Your task to perform on an android device: turn smart compose on in the gmail app Image 0: 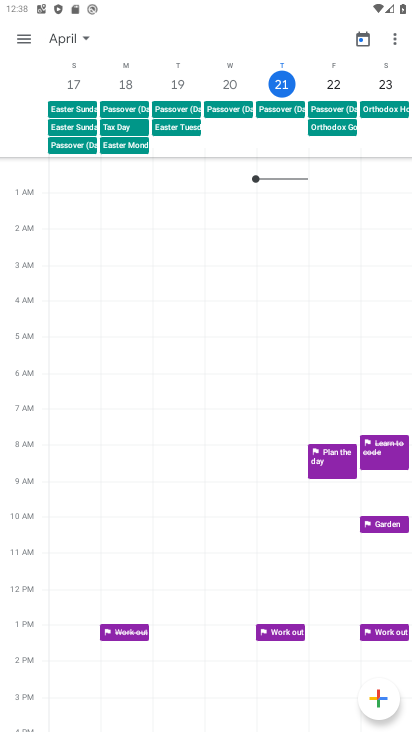
Step 0: press home button
Your task to perform on an android device: turn smart compose on in the gmail app Image 1: 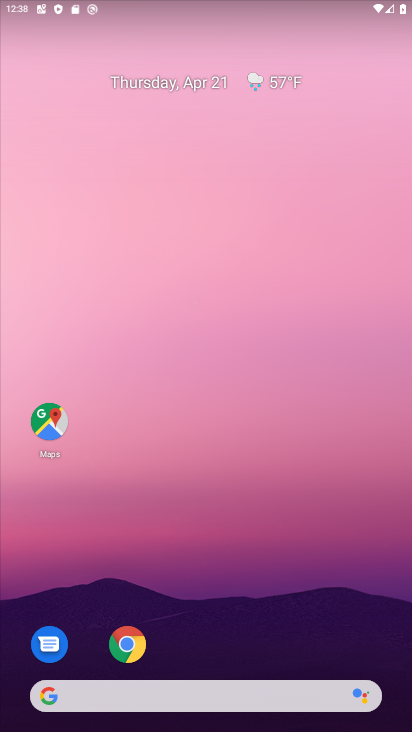
Step 1: drag from (205, 668) to (180, 1)
Your task to perform on an android device: turn smart compose on in the gmail app Image 2: 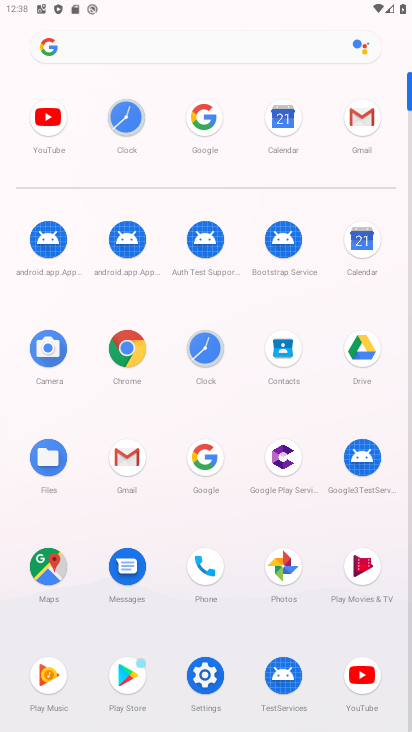
Step 2: click (127, 470)
Your task to perform on an android device: turn smart compose on in the gmail app Image 3: 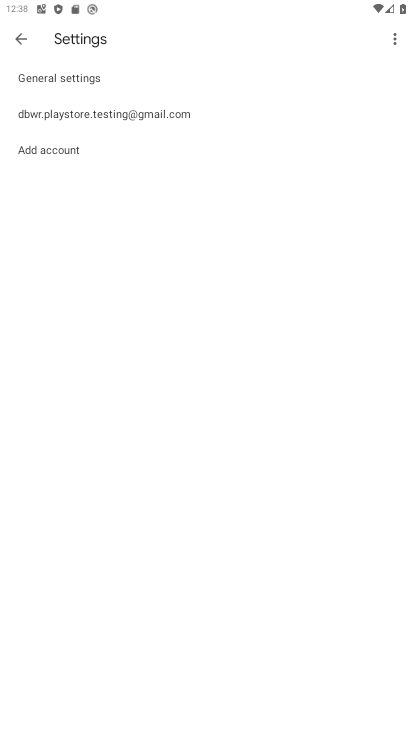
Step 3: click (134, 117)
Your task to perform on an android device: turn smart compose on in the gmail app Image 4: 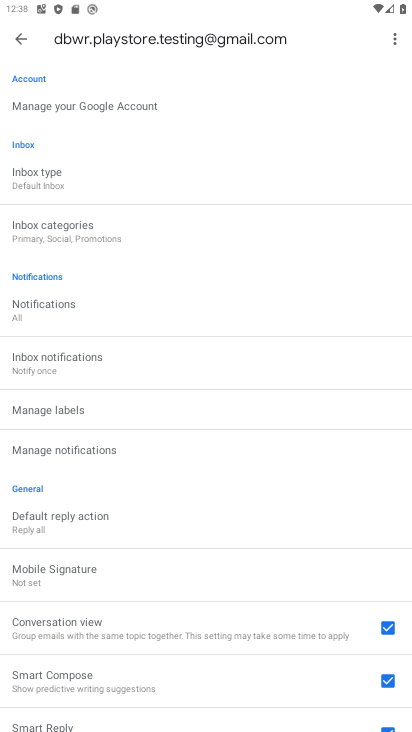
Step 4: task complete